Your task to perform on an android device: Turn on the flashlight Image 0: 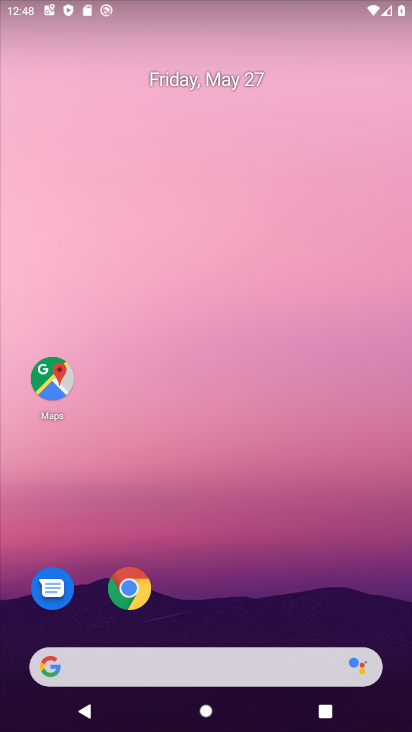
Step 0: drag from (244, 618) to (182, 72)
Your task to perform on an android device: Turn on the flashlight Image 1: 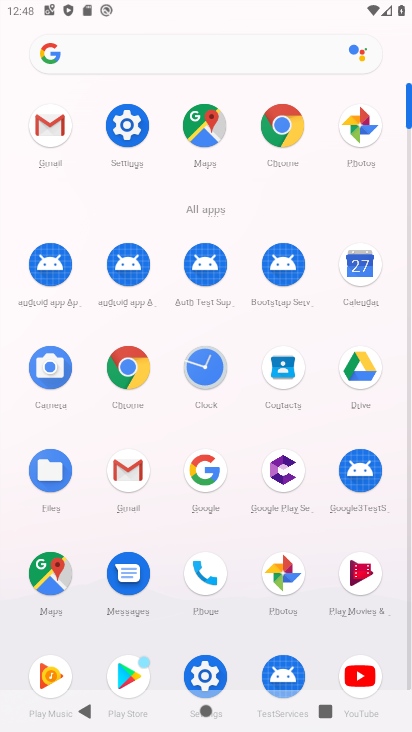
Step 1: click (127, 120)
Your task to perform on an android device: Turn on the flashlight Image 2: 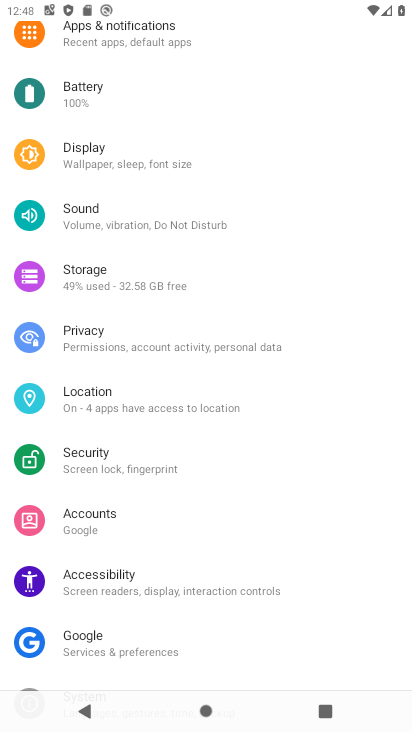
Step 2: task complete